Your task to perform on an android device: turn on translation in the chrome app Image 0: 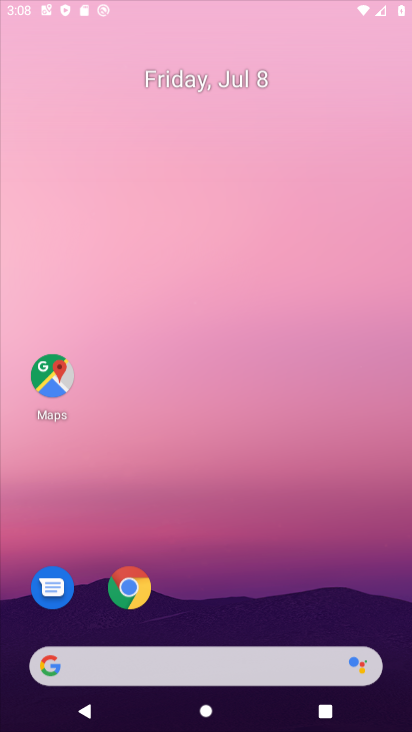
Step 0: press home button
Your task to perform on an android device: turn on translation in the chrome app Image 1: 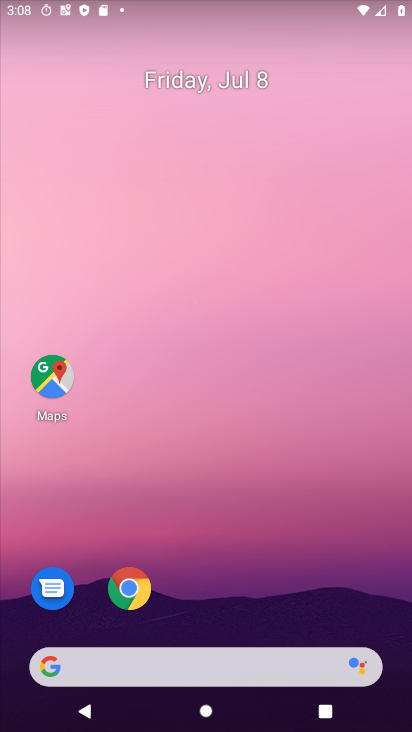
Step 1: drag from (269, 619) to (261, 196)
Your task to perform on an android device: turn on translation in the chrome app Image 2: 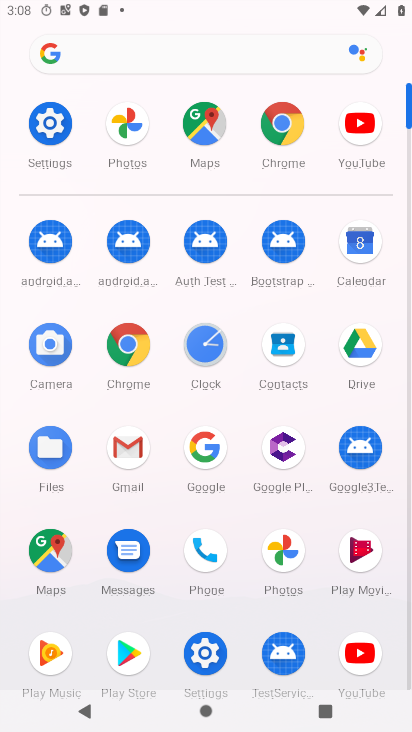
Step 2: click (280, 140)
Your task to perform on an android device: turn on translation in the chrome app Image 3: 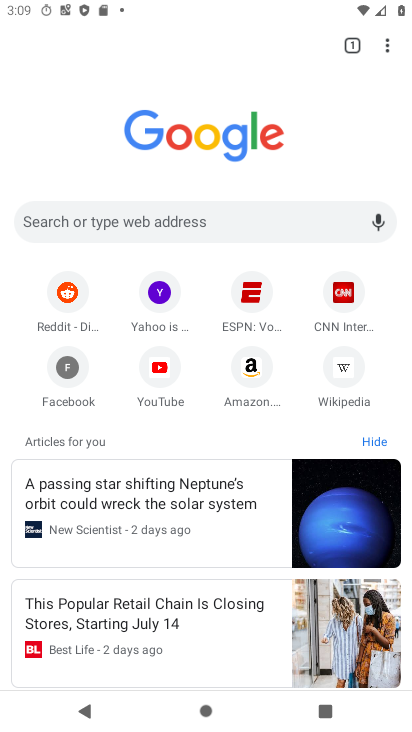
Step 3: drag from (390, 48) to (223, 383)
Your task to perform on an android device: turn on translation in the chrome app Image 4: 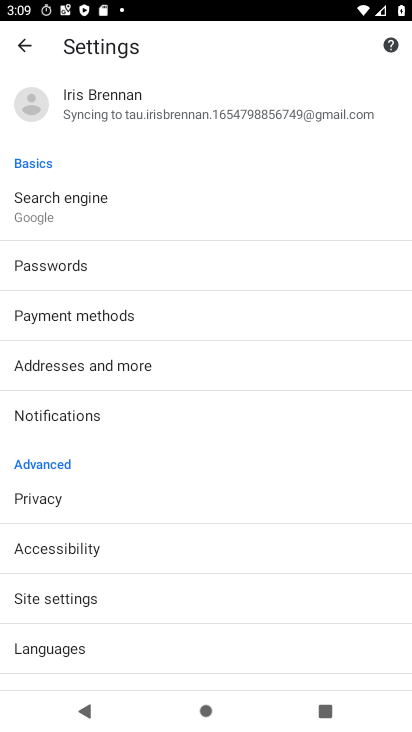
Step 4: click (68, 648)
Your task to perform on an android device: turn on translation in the chrome app Image 5: 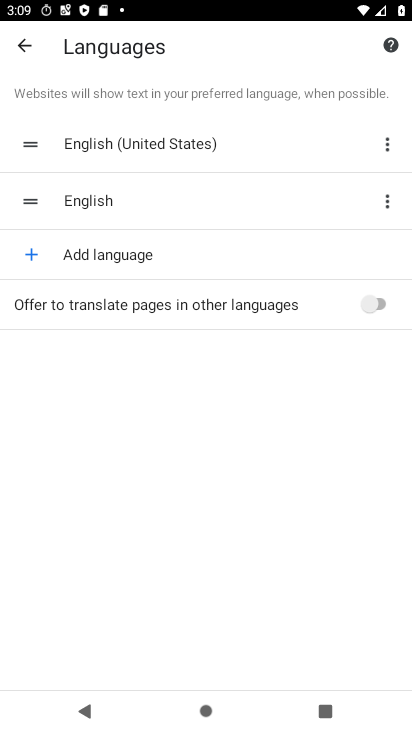
Step 5: click (377, 302)
Your task to perform on an android device: turn on translation in the chrome app Image 6: 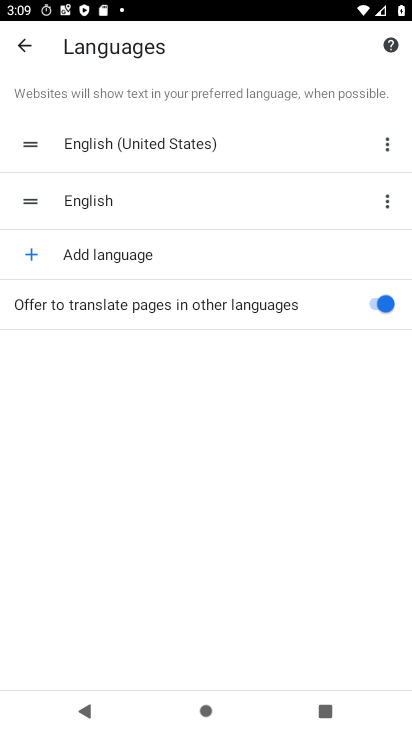
Step 6: task complete